Your task to perform on an android device: Open the phone app and click the voicemail tab. Image 0: 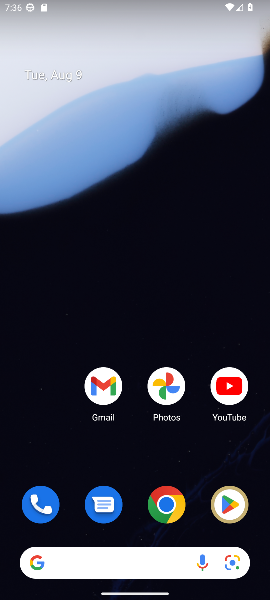
Step 0: press home button
Your task to perform on an android device: Open the phone app and click the voicemail tab. Image 1: 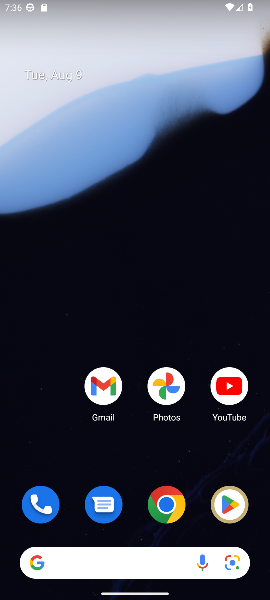
Step 1: drag from (194, 461) to (190, 418)
Your task to perform on an android device: Open the phone app and click the voicemail tab. Image 2: 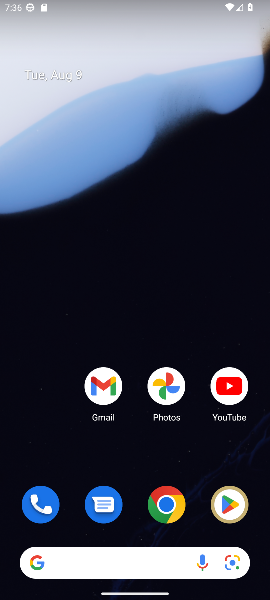
Step 2: click (39, 495)
Your task to perform on an android device: Open the phone app and click the voicemail tab. Image 3: 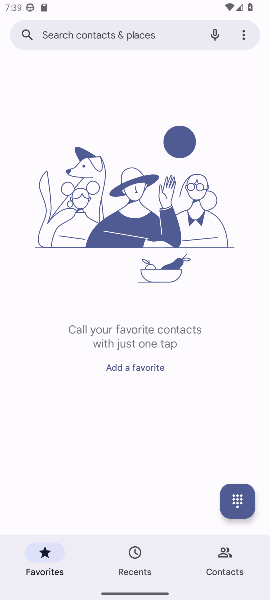
Step 3: task complete